Your task to perform on an android device: Do I have any events this weekend? Image 0: 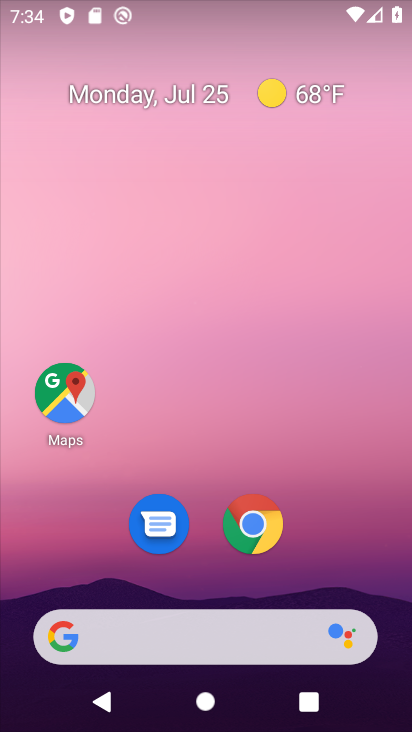
Step 0: drag from (324, 514) to (338, 4)
Your task to perform on an android device: Do I have any events this weekend? Image 1: 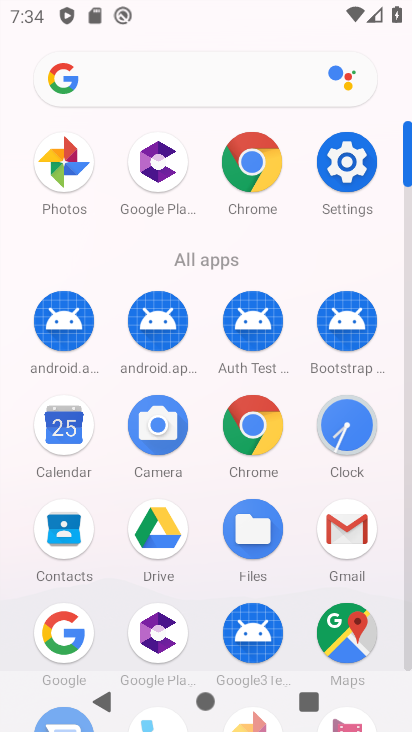
Step 1: click (60, 426)
Your task to perform on an android device: Do I have any events this weekend? Image 2: 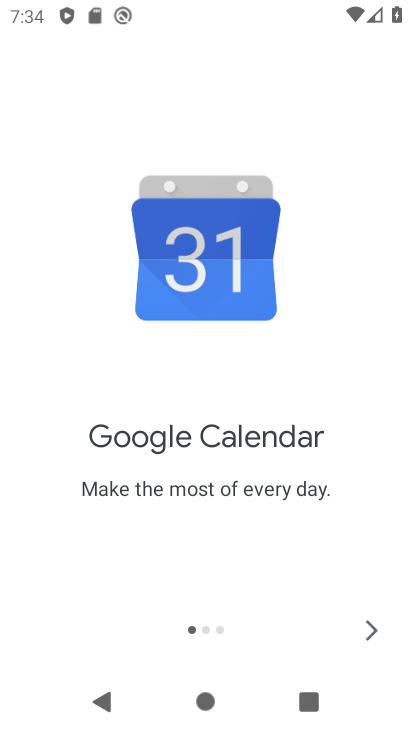
Step 2: click (371, 628)
Your task to perform on an android device: Do I have any events this weekend? Image 3: 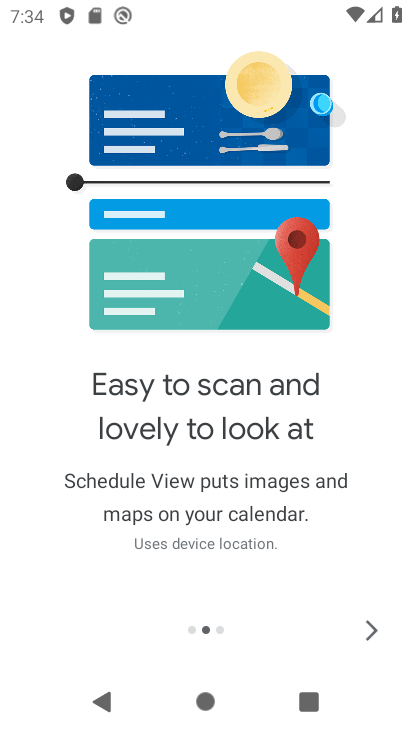
Step 3: click (371, 628)
Your task to perform on an android device: Do I have any events this weekend? Image 4: 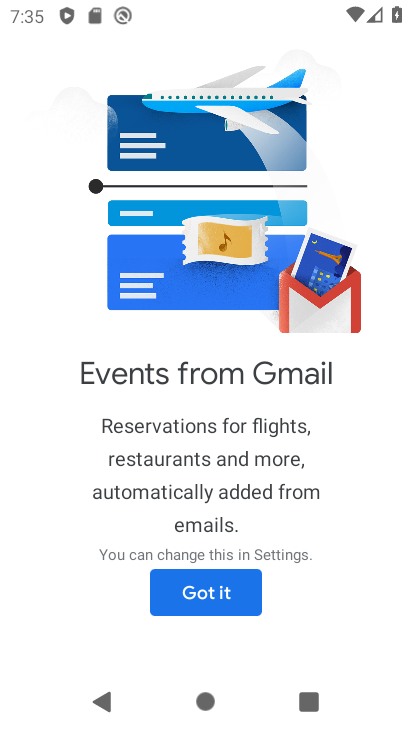
Step 4: click (253, 597)
Your task to perform on an android device: Do I have any events this weekend? Image 5: 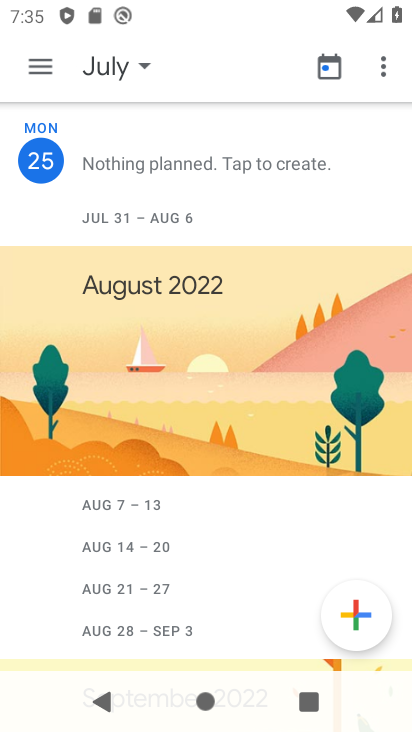
Step 5: click (44, 64)
Your task to perform on an android device: Do I have any events this weekend? Image 6: 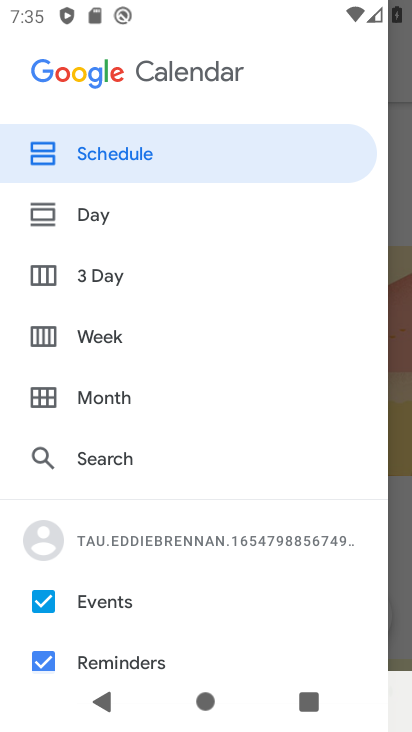
Step 6: click (50, 331)
Your task to perform on an android device: Do I have any events this weekend? Image 7: 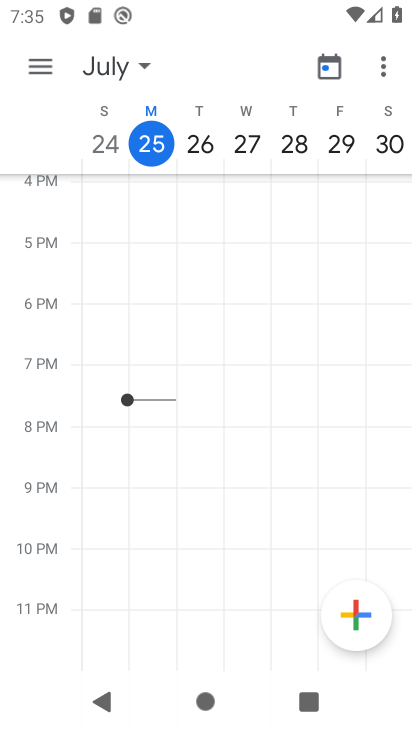
Step 7: task complete